Your task to perform on an android device: Open Google Chrome and open the bookmarks view Image 0: 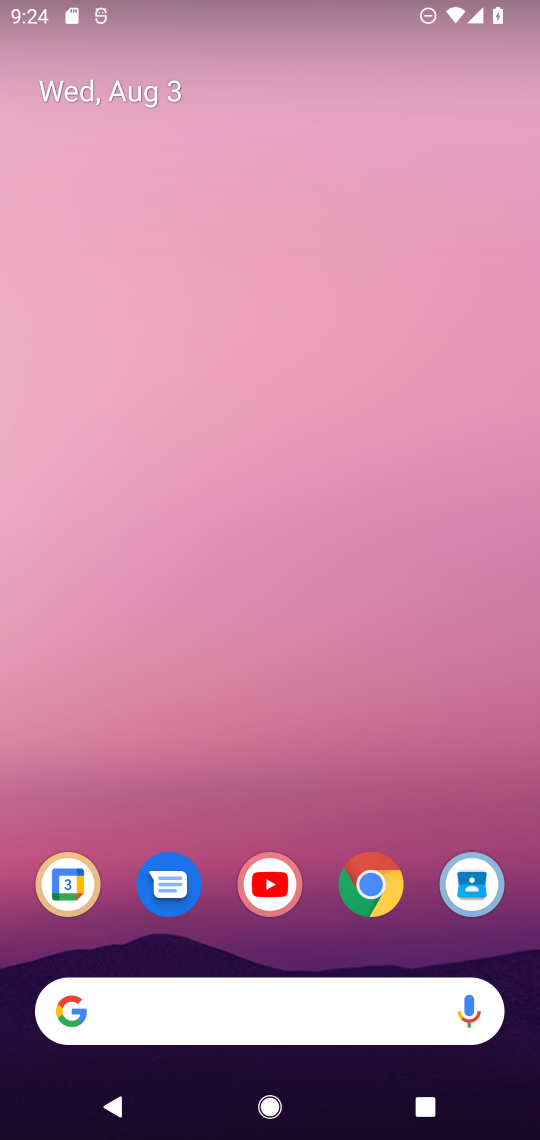
Step 0: click (363, 878)
Your task to perform on an android device: Open Google Chrome and open the bookmarks view Image 1: 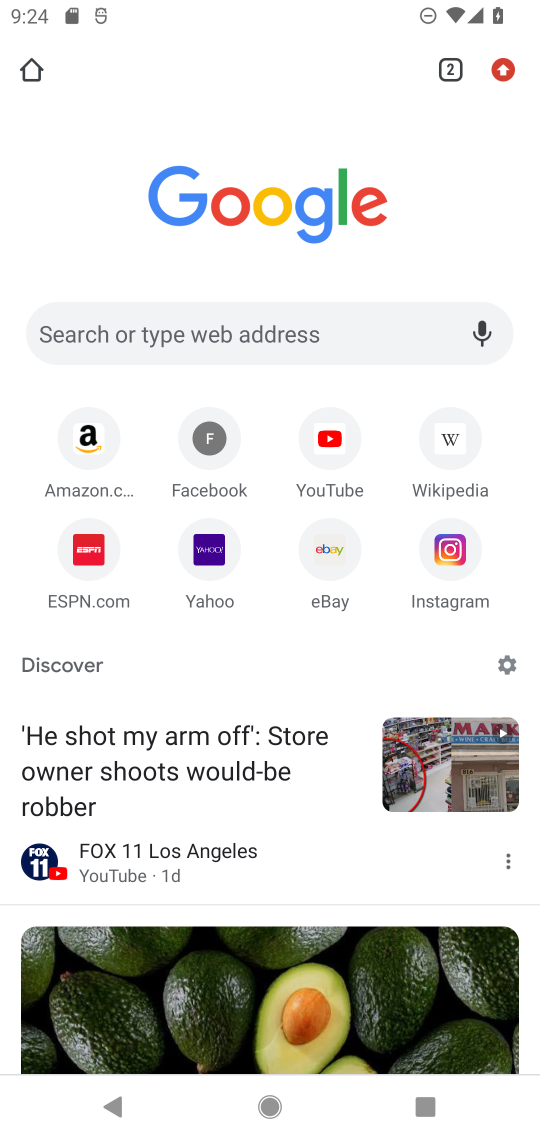
Step 1: click (502, 64)
Your task to perform on an android device: Open Google Chrome and open the bookmarks view Image 2: 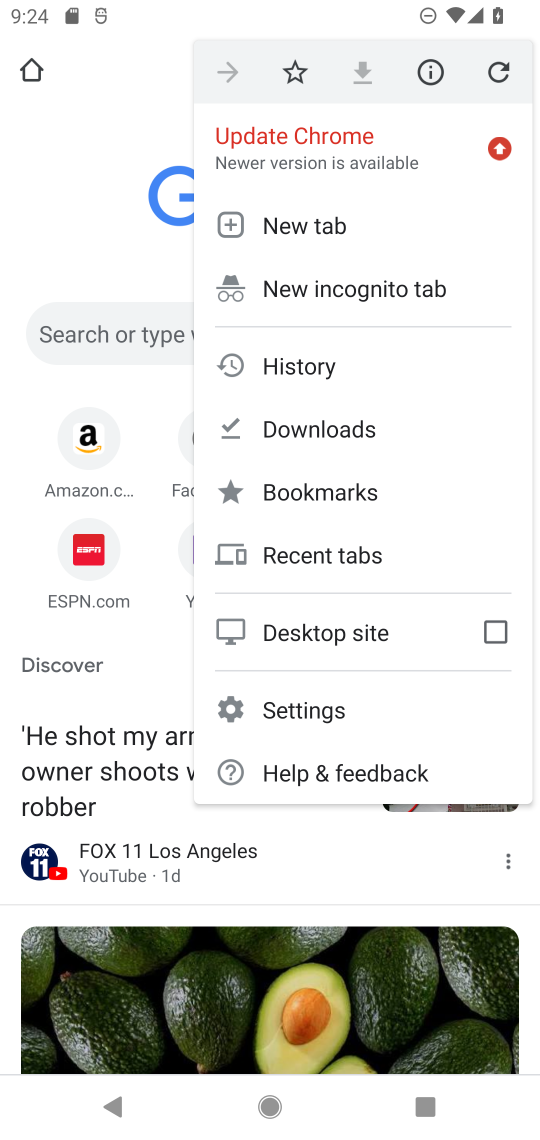
Step 2: click (284, 481)
Your task to perform on an android device: Open Google Chrome and open the bookmarks view Image 3: 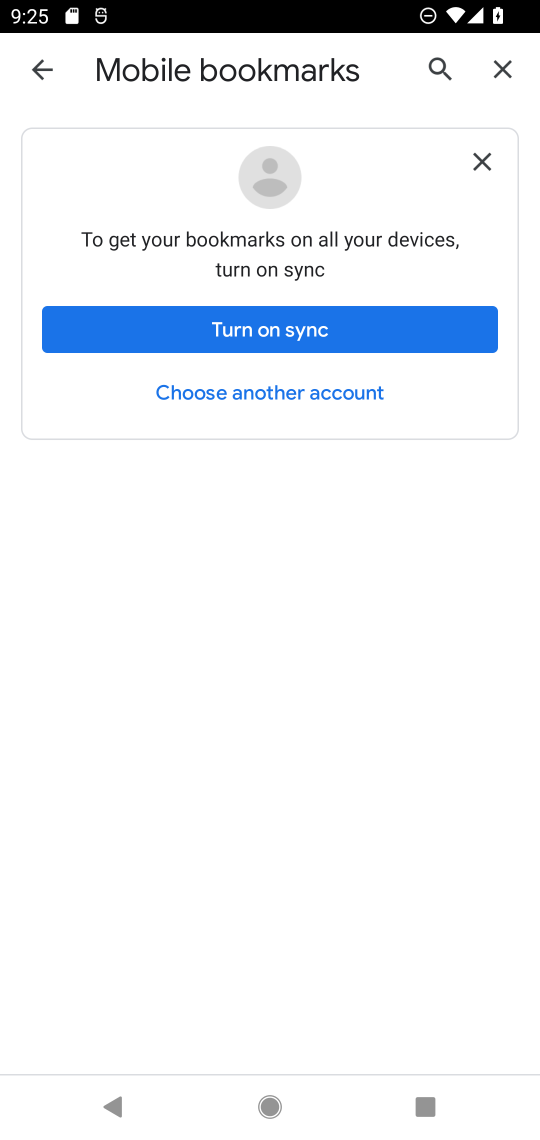
Step 3: task complete